Your task to perform on an android device: delete location history Image 0: 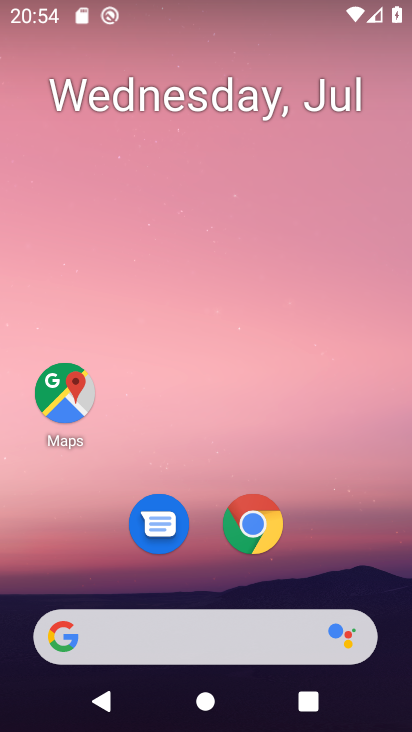
Step 0: click (62, 397)
Your task to perform on an android device: delete location history Image 1: 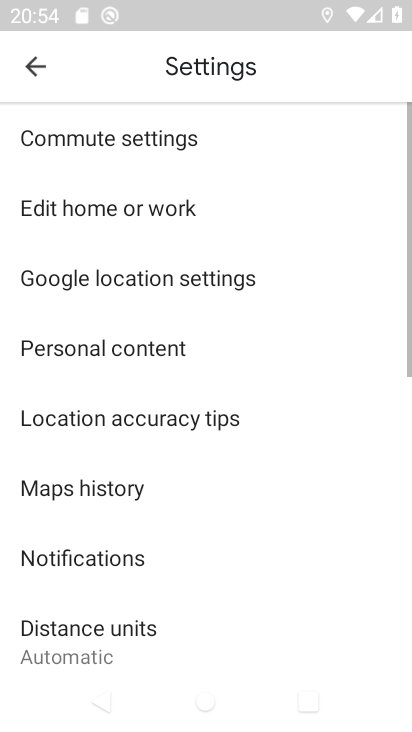
Step 1: click (36, 56)
Your task to perform on an android device: delete location history Image 2: 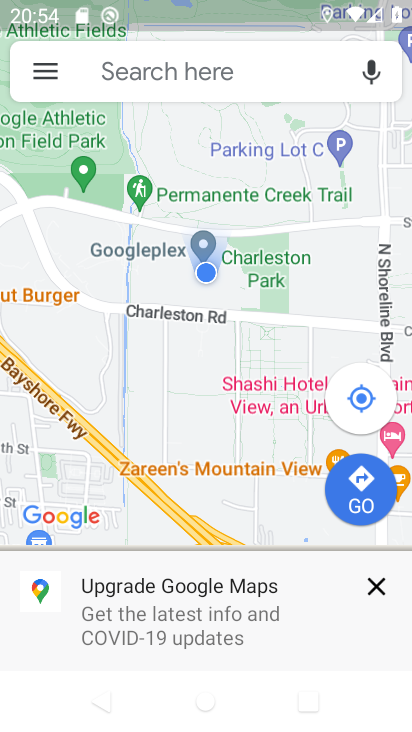
Step 2: click (48, 69)
Your task to perform on an android device: delete location history Image 3: 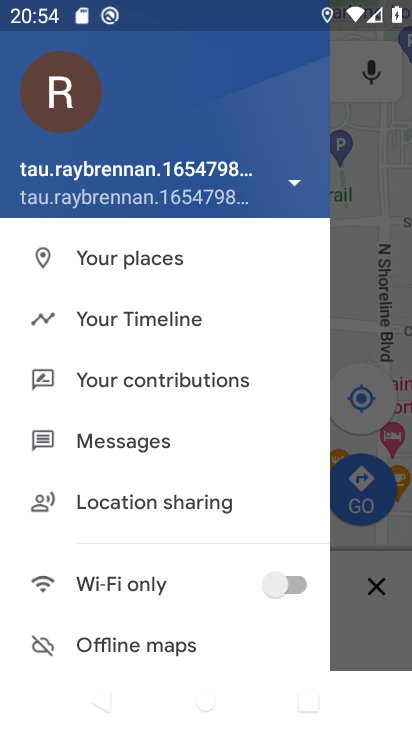
Step 3: click (163, 317)
Your task to perform on an android device: delete location history Image 4: 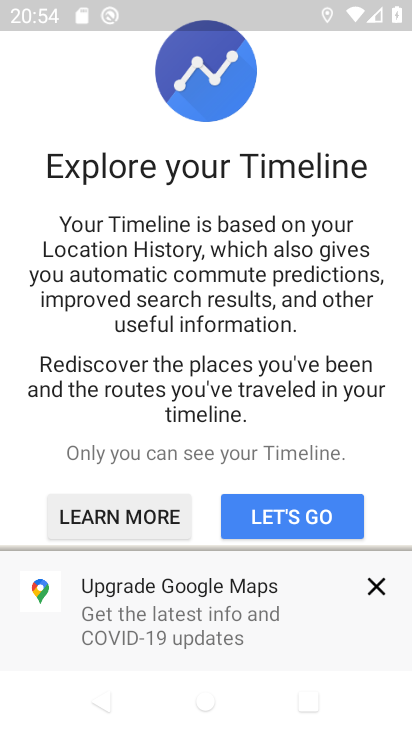
Step 4: click (374, 586)
Your task to perform on an android device: delete location history Image 5: 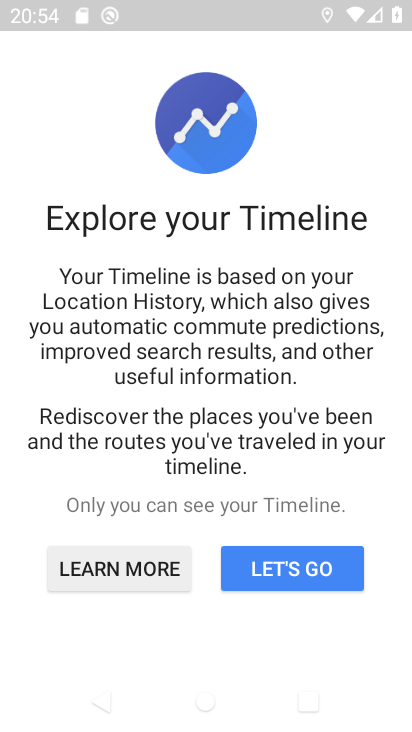
Step 5: click (326, 564)
Your task to perform on an android device: delete location history Image 6: 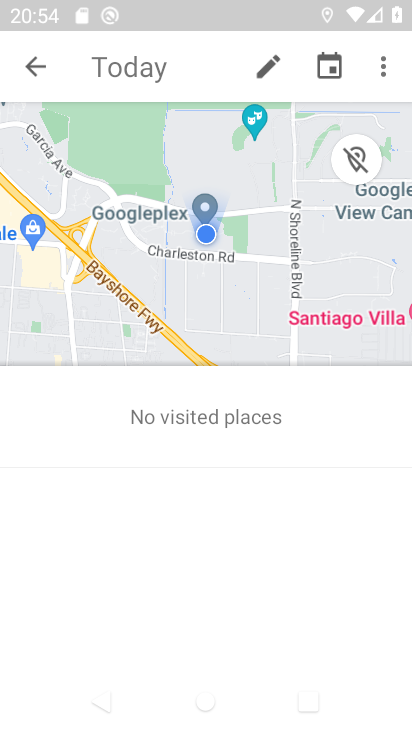
Step 6: click (381, 61)
Your task to perform on an android device: delete location history Image 7: 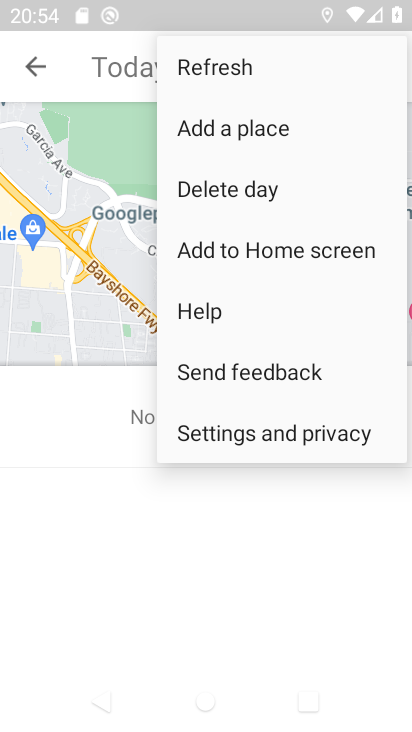
Step 7: click (265, 431)
Your task to perform on an android device: delete location history Image 8: 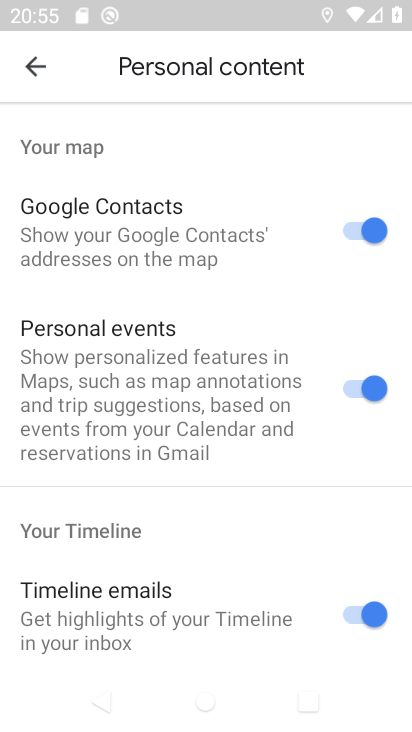
Step 8: drag from (184, 553) to (302, 116)
Your task to perform on an android device: delete location history Image 9: 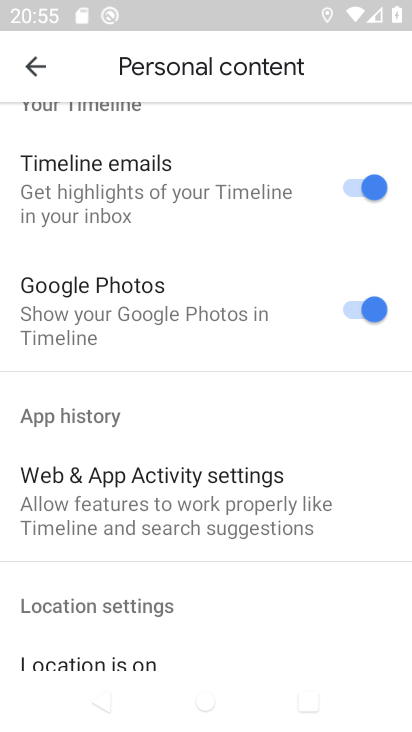
Step 9: drag from (210, 557) to (304, 137)
Your task to perform on an android device: delete location history Image 10: 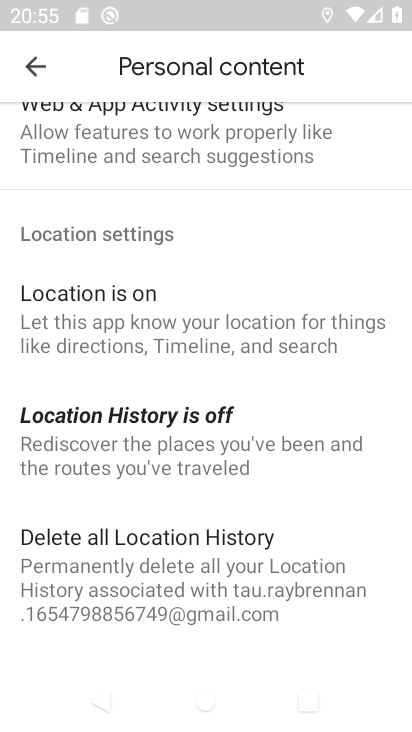
Step 10: click (172, 546)
Your task to perform on an android device: delete location history Image 11: 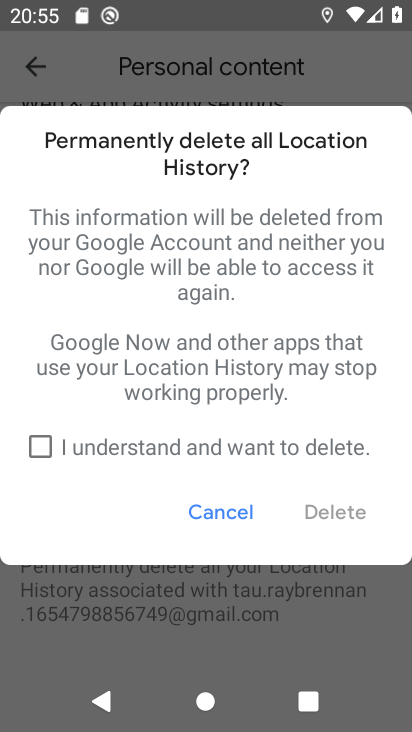
Step 11: click (40, 436)
Your task to perform on an android device: delete location history Image 12: 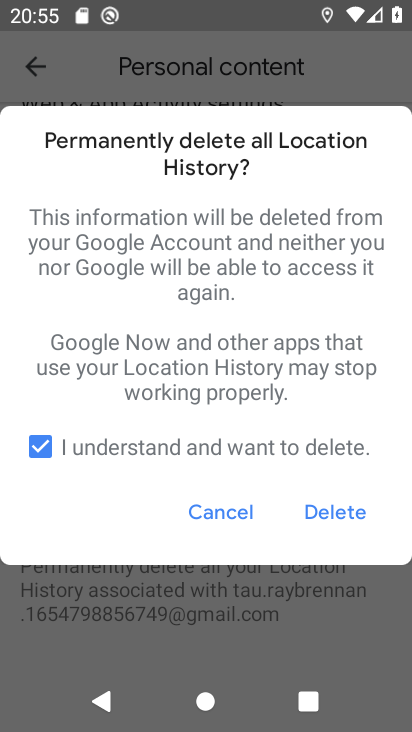
Step 12: click (343, 514)
Your task to perform on an android device: delete location history Image 13: 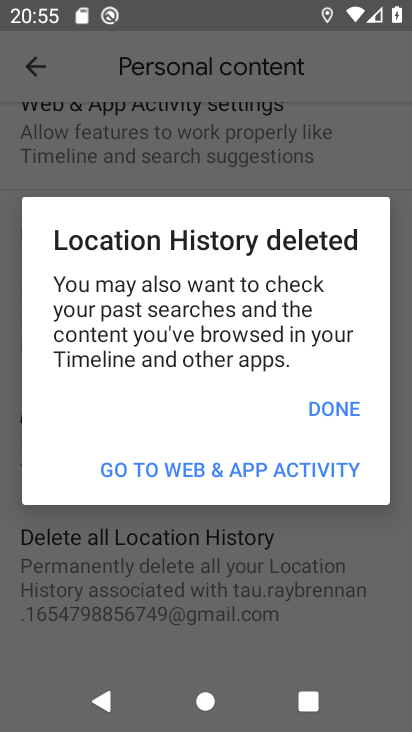
Step 13: click (335, 402)
Your task to perform on an android device: delete location history Image 14: 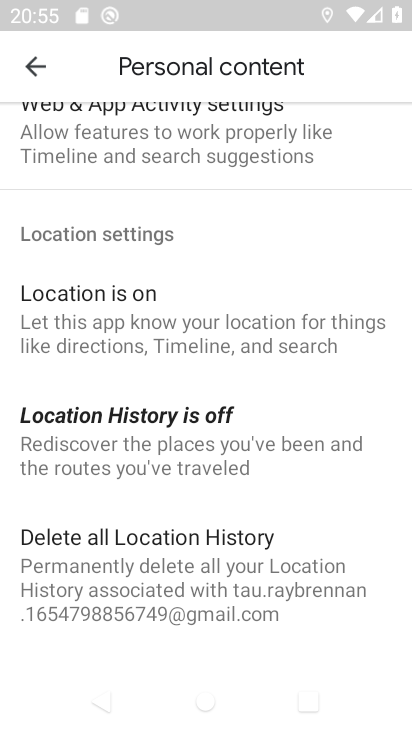
Step 14: task complete